Your task to perform on an android device: toggle sleep mode Image 0: 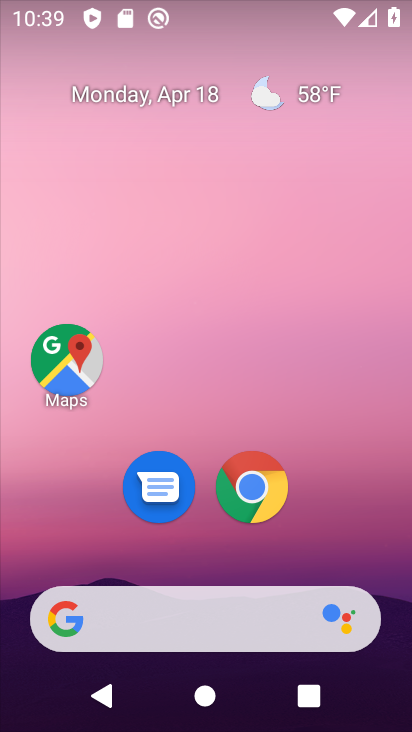
Step 0: drag from (371, 524) to (335, 156)
Your task to perform on an android device: toggle sleep mode Image 1: 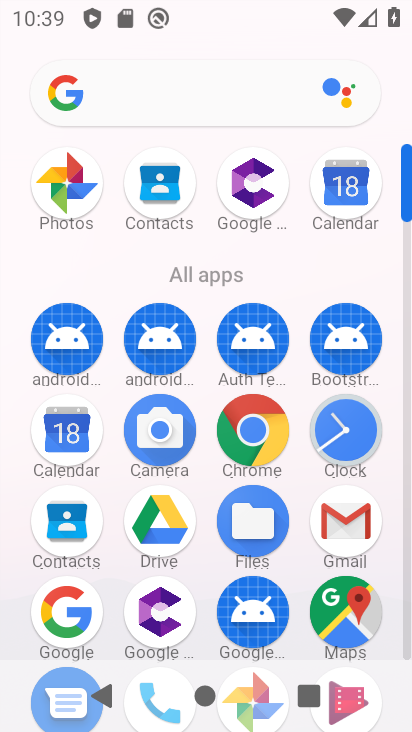
Step 1: drag from (192, 268) to (185, 113)
Your task to perform on an android device: toggle sleep mode Image 2: 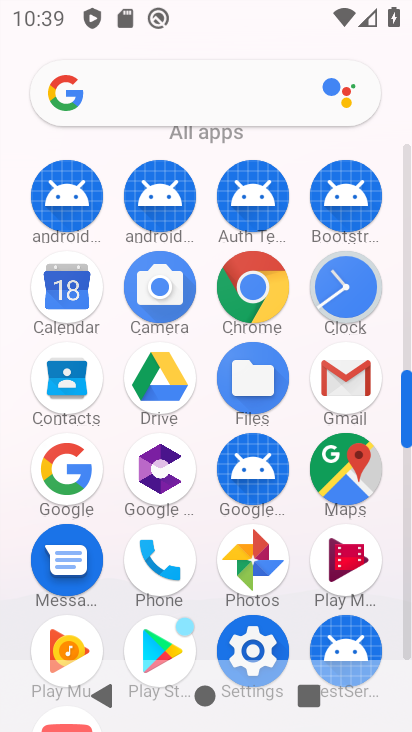
Step 2: click (257, 647)
Your task to perform on an android device: toggle sleep mode Image 3: 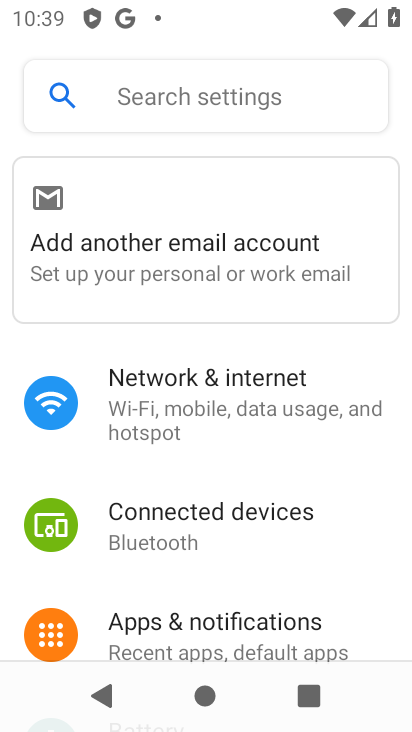
Step 3: drag from (224, 561) to (210, 290)
Your task to perform on an android device: toggle sleep mode Image 4: 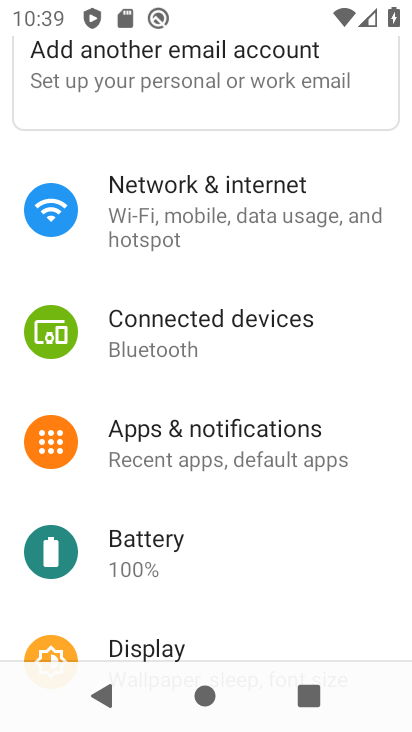
Step 4: click (154, 645)
Your task to perform on an android device: toggle sleep mode Image 5: 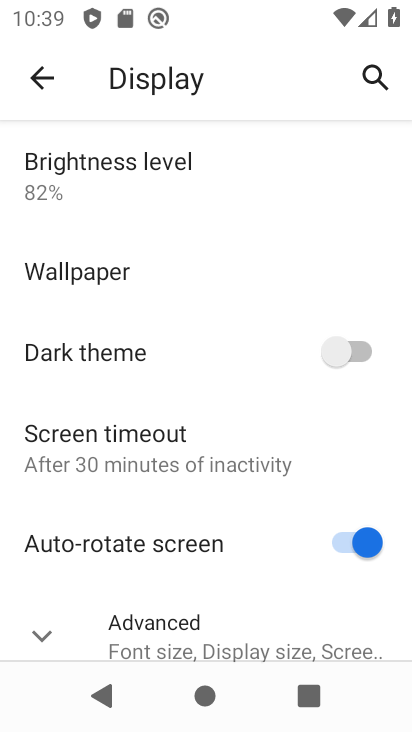
Step 5: drag from (241, 574) to (211, 390)
Your task to perform on an android device: toggle sleep mode Image 6: 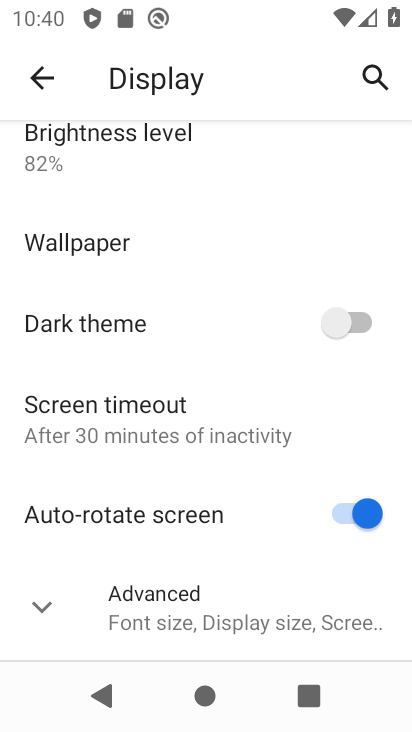
Step 6: click (158, 411)
Your task to perform on an android device: toggle sleep mode Image 7: 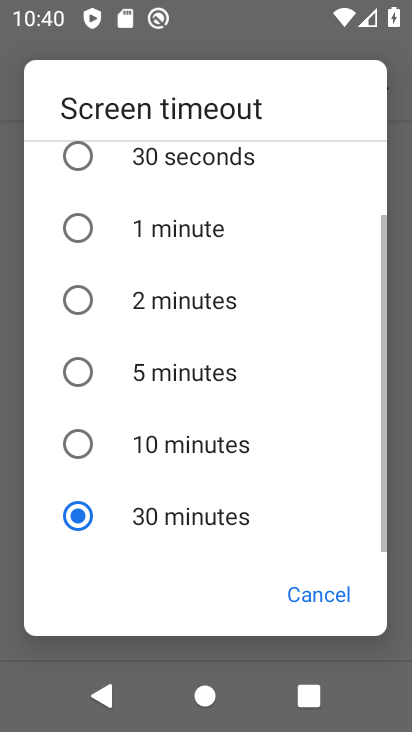
Step 7: drag from (187, 212) to (174, 616)
Your task to perform on an android device: toggle sleep mode Image 8: 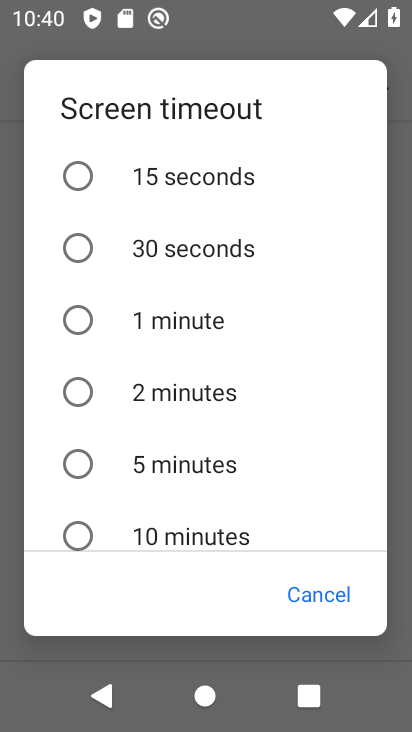
Step 8: click (332, 606)
Your task to perform on an android device: toggle sleep mode Image 9: 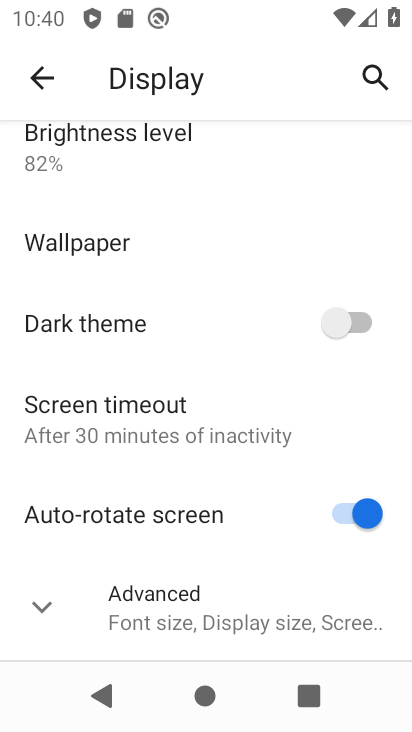
Step 9: task complete